Your task to perform on an android device: Open Chrome and go to the settings page Image 0: 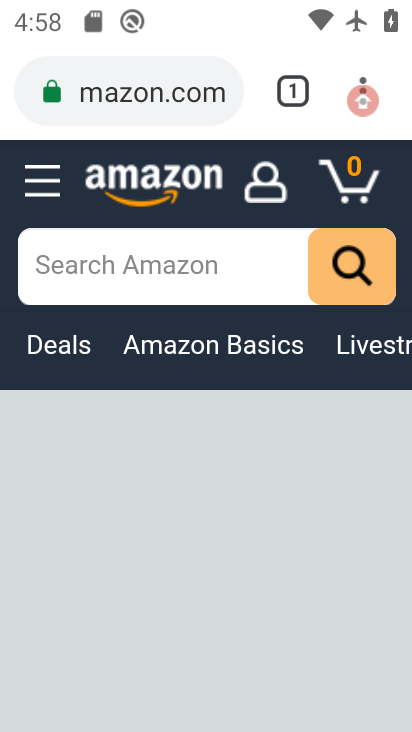
Step 0: press home button
Your task to perform on an android device: Open Chrome and go to the settings page Image 1: 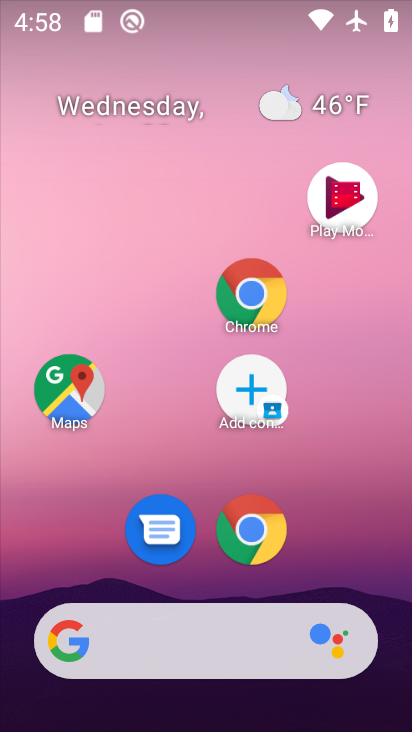
Step 1: click (253, 551)
Your task to perform on an android device: Open Chrome and go to the settings page Image 2: 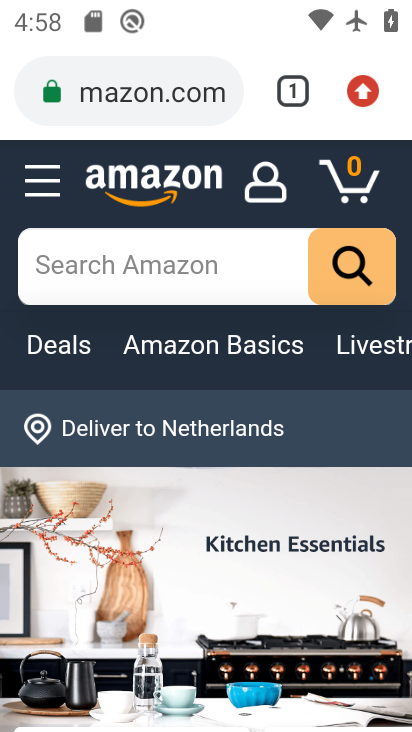
Step 2: click (366, 100)
Your task to perform on an android device: Open Chrome and go to the settings page Image 3: 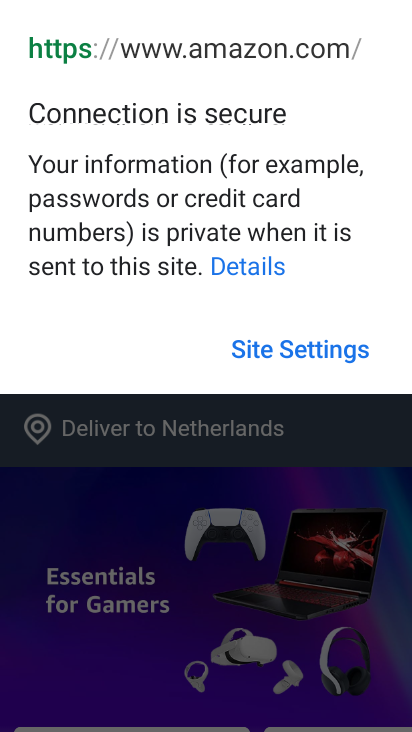
Step 3: click (286, 516)
Your task to perform on an android device: Open Chrome and go to the settings page Image 4: 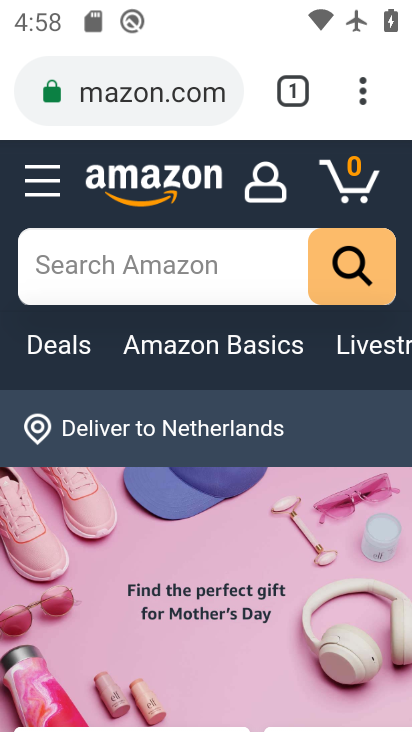
Step 4: task complete